Your task to perform on an android device: Search for "usb-b" on bestbuy.com, select the first entry, and add it to the cart. Image 0: 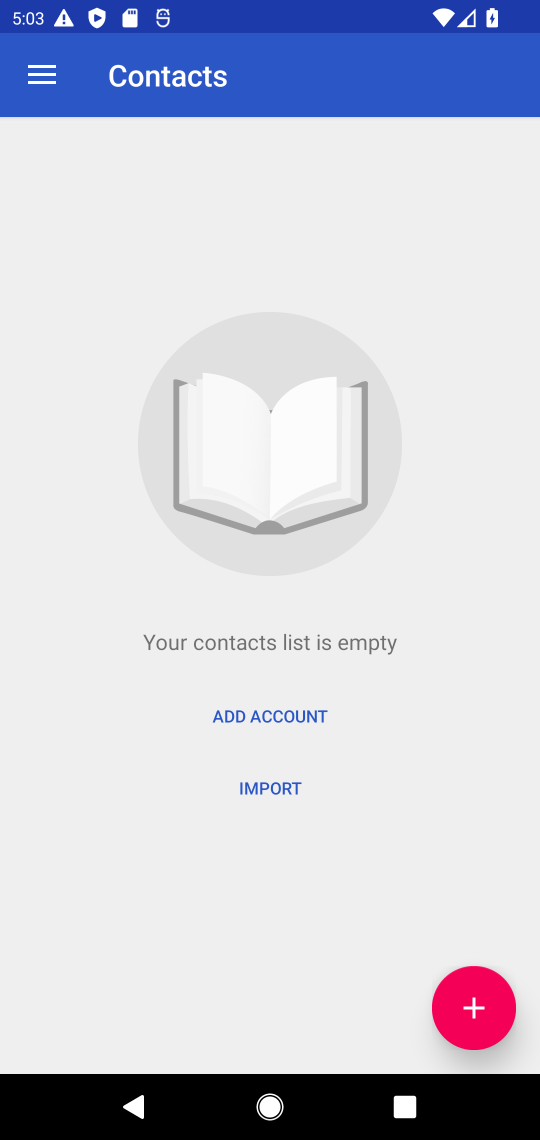
Step 0: press home button
Your task to perform on an android device: Search for "usb-b" on bestbuy.com, select the first entry, and add it to the cart. Image 1: 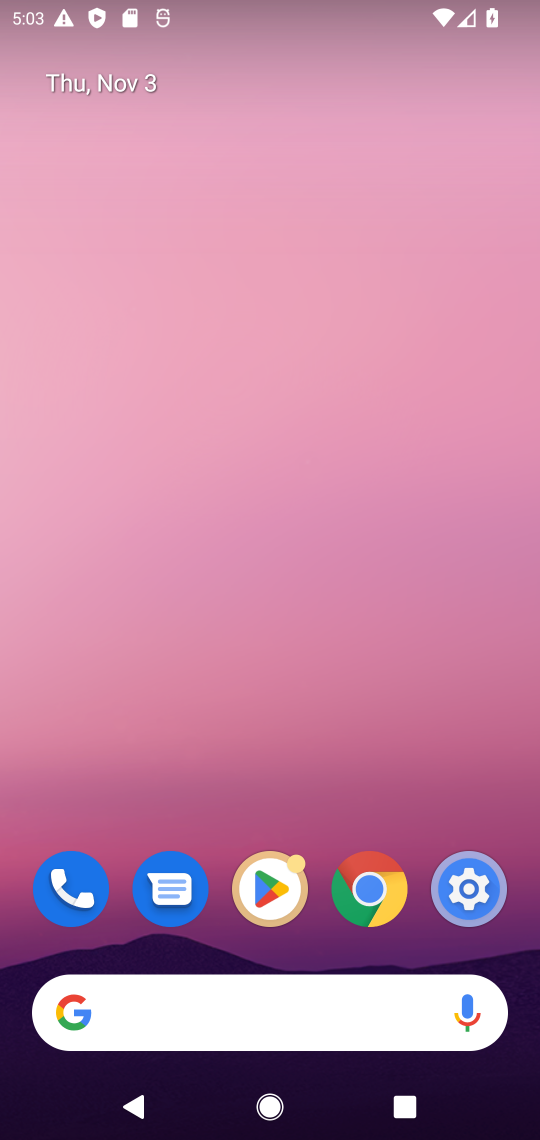
Step 1: click (106, 1002)
Your task to perform on an android device: Search for "usb-b" on bestbuy.com, select the first entry, and add it to the cart. Image 2: 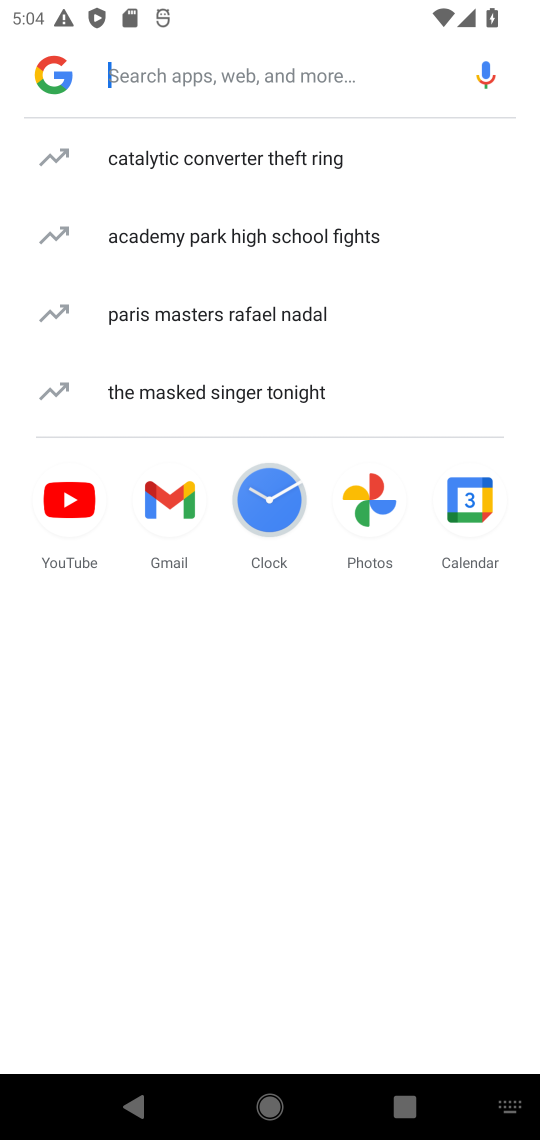
Step 2: type "bestbuy.com"
Your task to perform on an android device: Search for "usb-b" on bestbuy.com, select the first entry, and add it to the cart. Image 3: 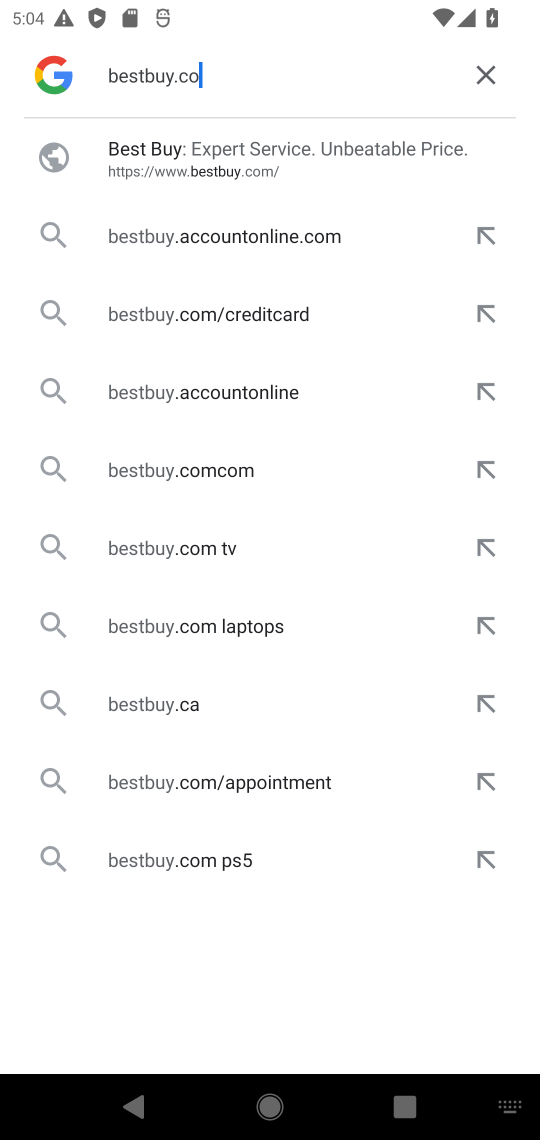
Step 3: press enter
Your task to perform on an android device: Search for "usb-b" on bestbuy.com, select the first entry, and add it to the cart. Image 4: 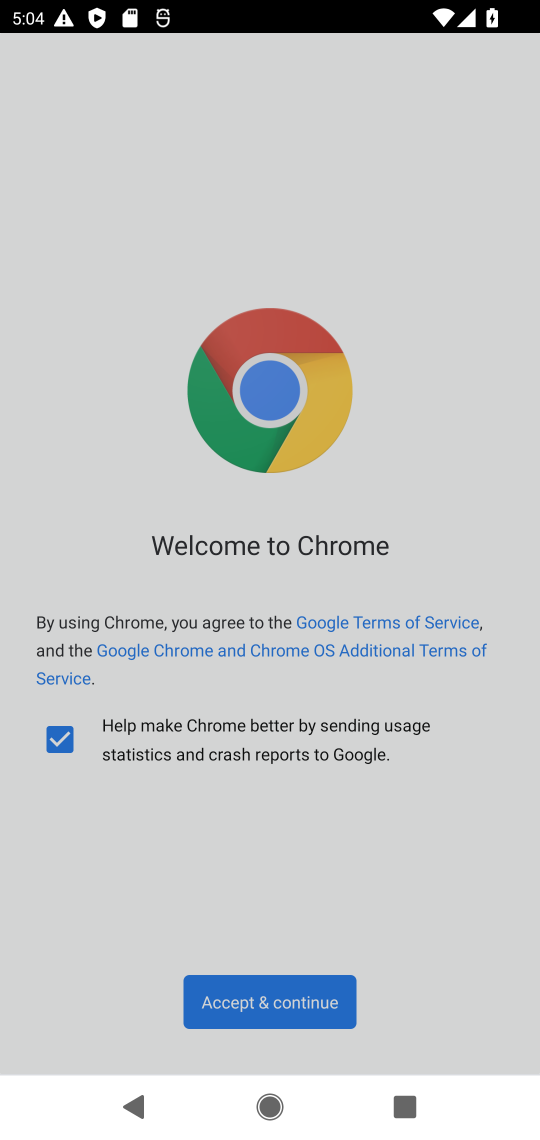
Step 4: click (250, 1007)
Your task to perform on an android device: Search for "usb-b" on bestbuy.com, select the first entry, and add it to the cart. Image 5: 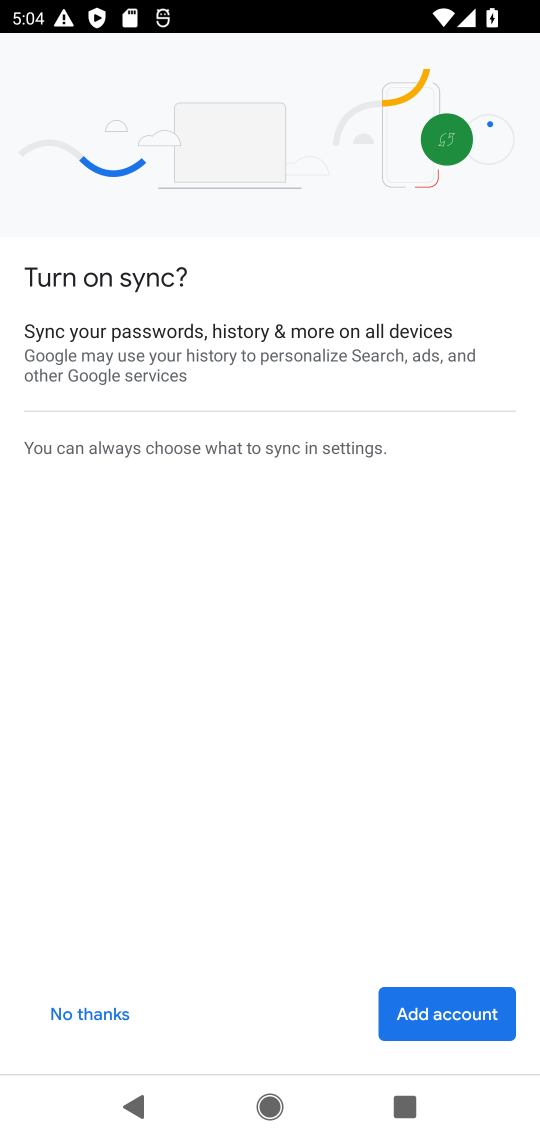
Step 5: click (100, 1012)
Your task to perform on an android device: Search for "usb-b" on bestbuy.com, select the first entry, and add it to the cart. Image 6: 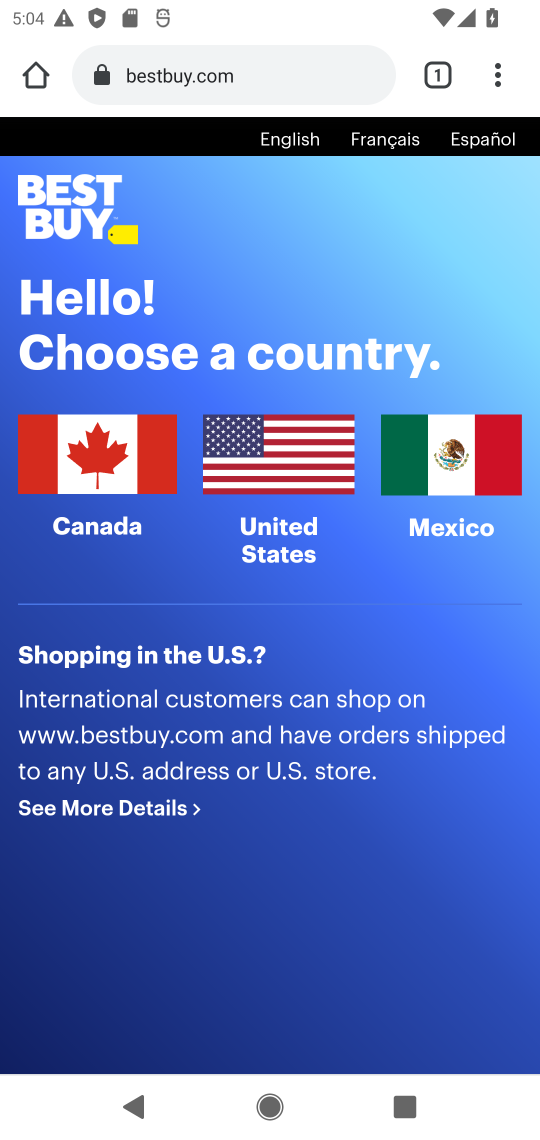
Step 6: click (104, 464)
Your task to perform on an android device: Search for "usb-b" on bestbuy.com, select the first entry, and add it to the cart. Image 7: 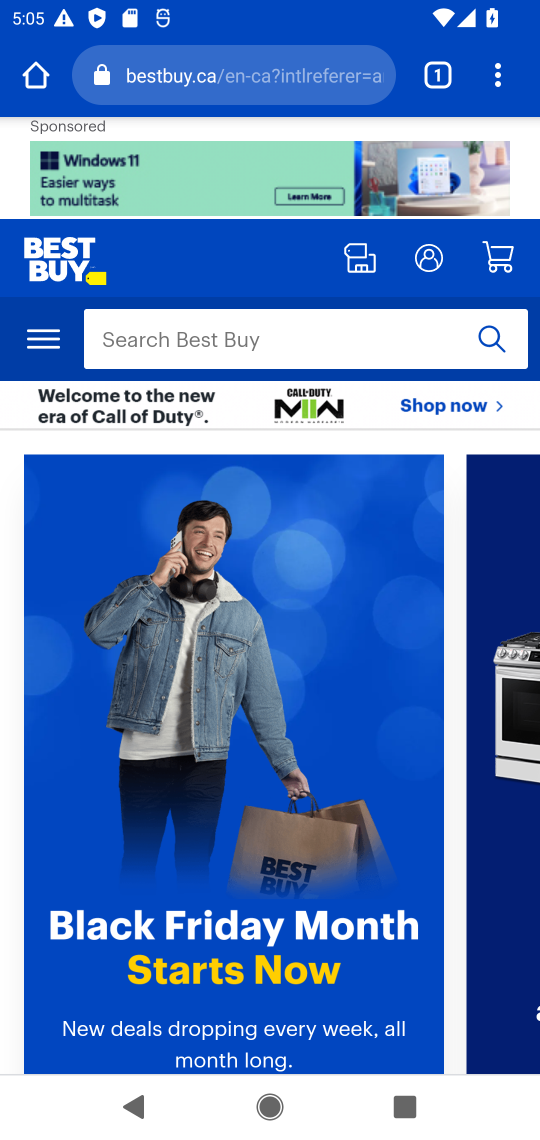
Step 7: click (148, 338)
Your task to perform on an android device: Search for "usb-b" on bestbuy.com, select the first entry, and add it to the cart. Image 8: 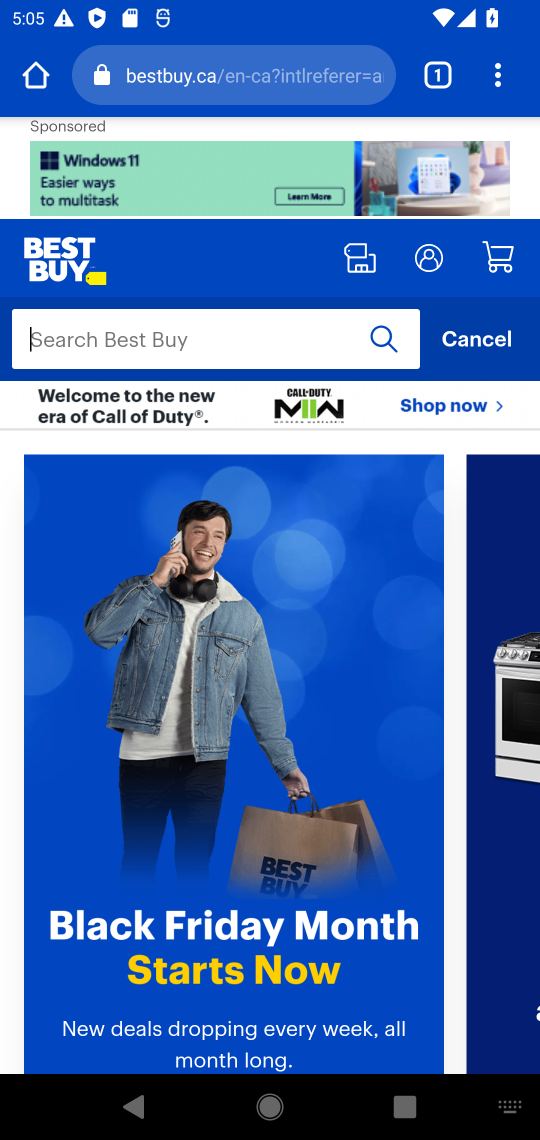
Step 8: type "usb-b"
Your task to perform on an android device: Search for "usb-b" on bestbuy.com, select the first entry, and add it to the cart. Image 9: 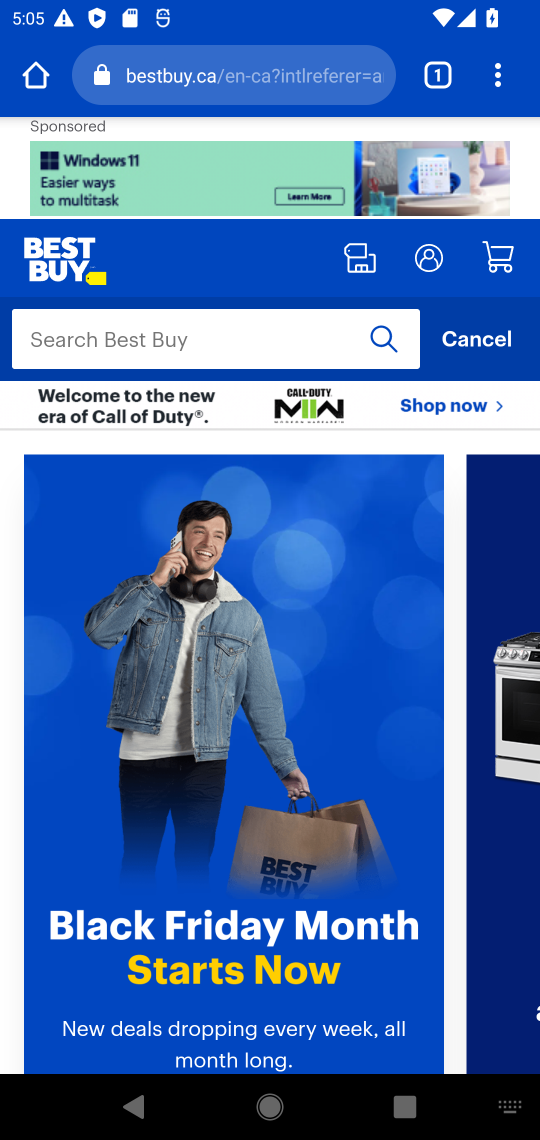
Step 9: press enter
Your task to perform on an android device: Search for "usb-b" on bestbuy.com, select the first entry, and add it to the cart. Image 10: 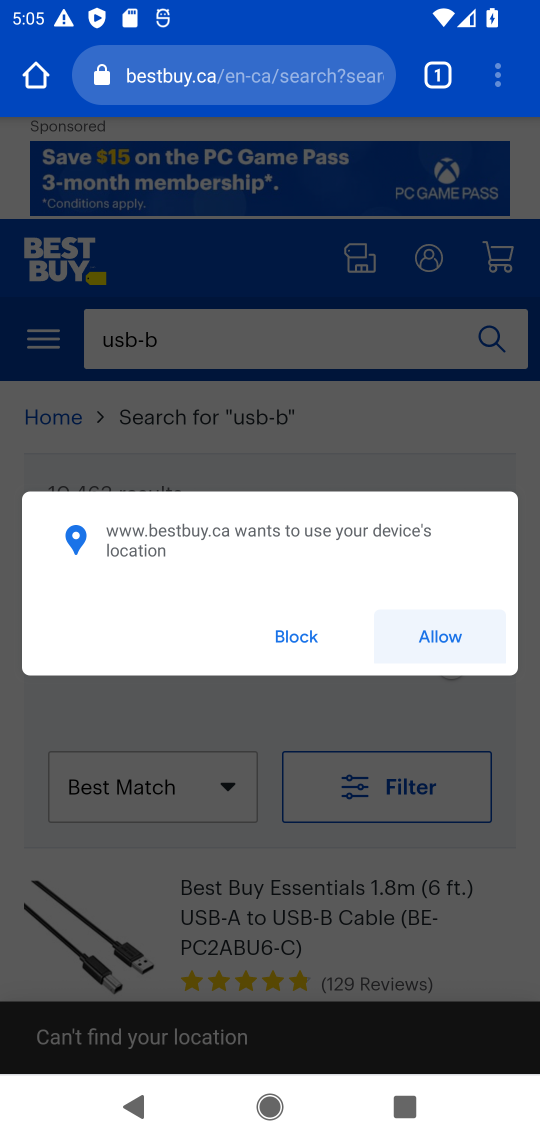
Step 10: click (275, 629)
Your task to perform on an android device: Search for "usb-b" on bestbuy.com, select the first entry, and add it to the cart. Image 11: 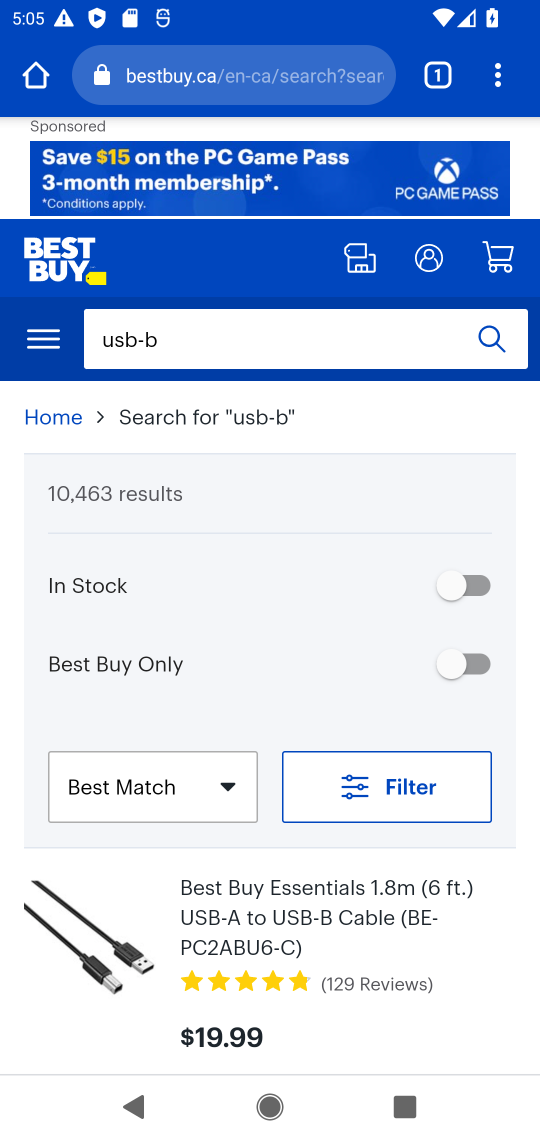
Step 11: task complete